Your task to perform on an android device: empty trash in the gmail app Image 0: 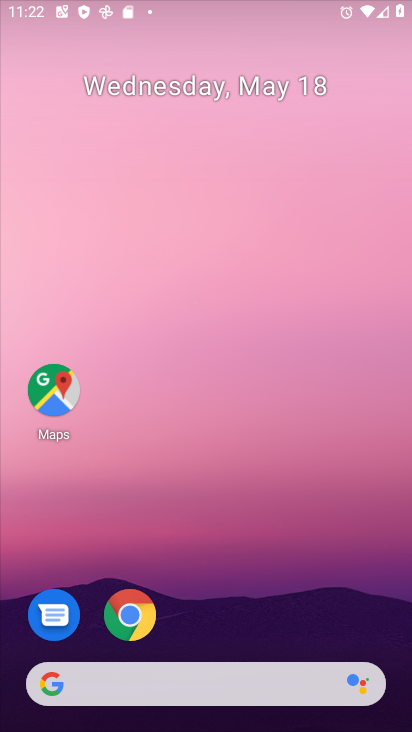
Step 0: drag from (200, 662) to (213, 274)
Your task to perform on an android device: empty trash in the gmail app Image 1: 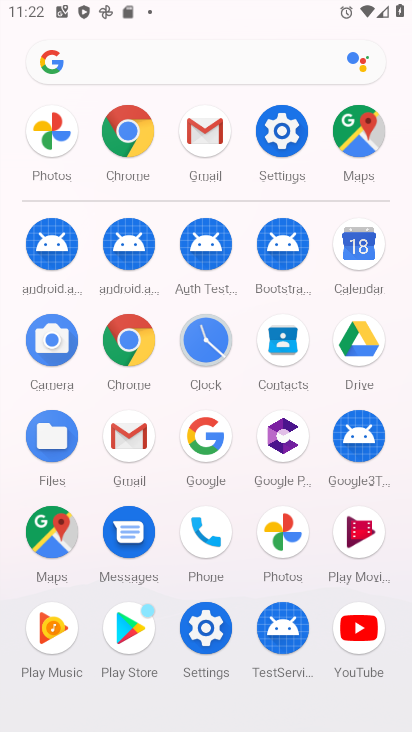
Step 1: click (204, 142)
Your task to perform on an android device: empty trash in the gmail app Image 2: 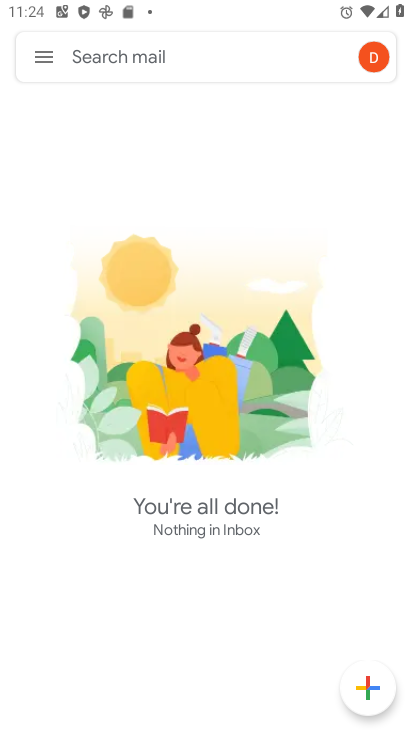
Step 2: click (45, 57)
Your task to perform on an android device: empty trash in the gmail app Image 3: 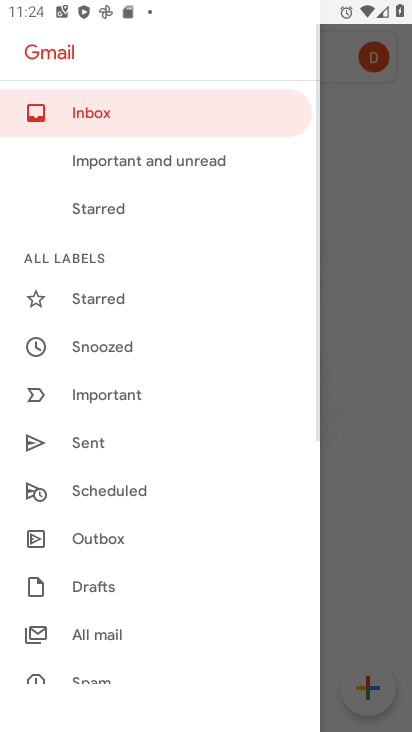
Step 3: drag from (117, 663) to (143, 336)
Your task to perform on an android device: empty trash in the gmail app Image 4: 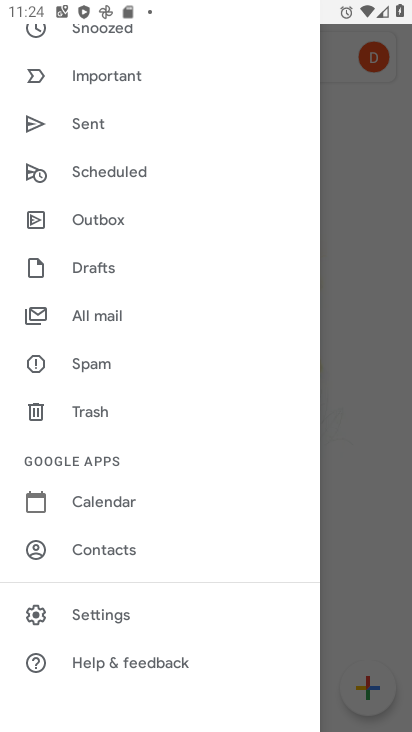
Step 4: click (83, 415)
Your task to perform on an android device: empty trash in the gmail app Image 5: 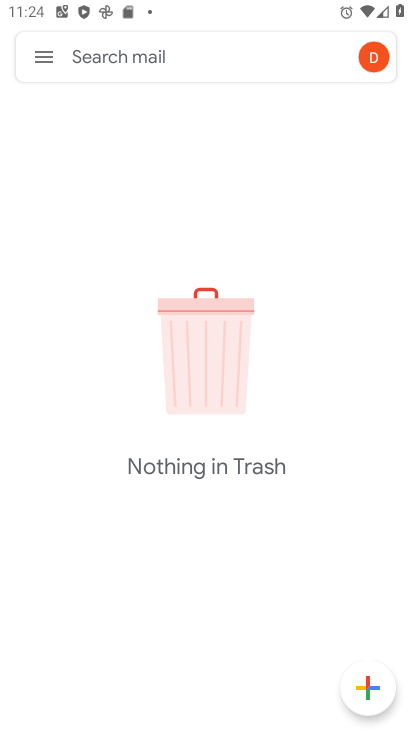
Step 5: task complete